Your task to perform on an android device: Search for sushi restaurants on Maps Image 0: 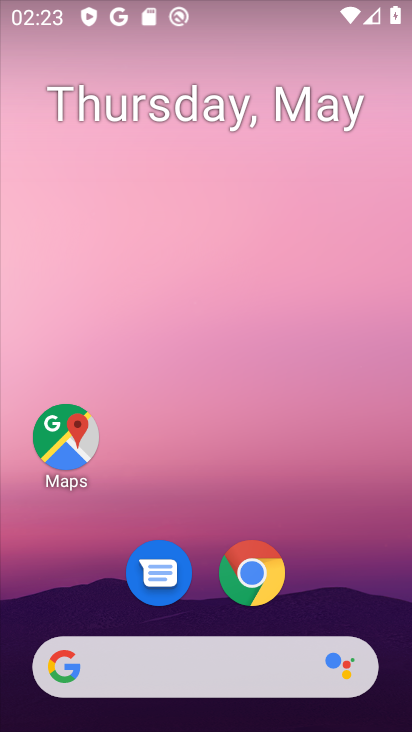
Step 0: click (67, 436)
Your task to perform on an android device: Search for sushi restaurants on Maps Image 1: 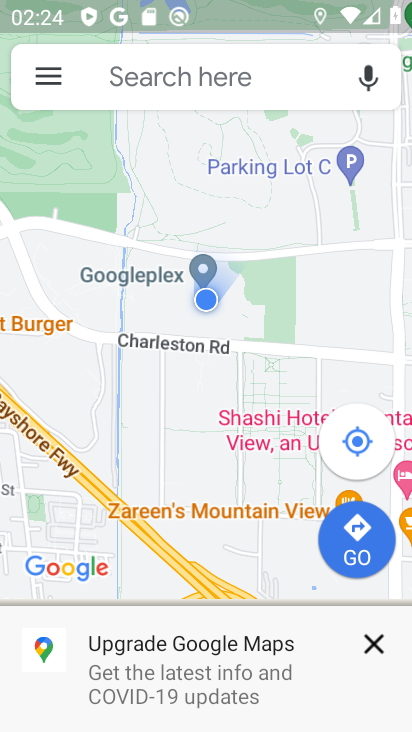
Step 1: click (145, 63)
Your task to perform on an android device: Search for sushi restaurants on Maps Image 2: 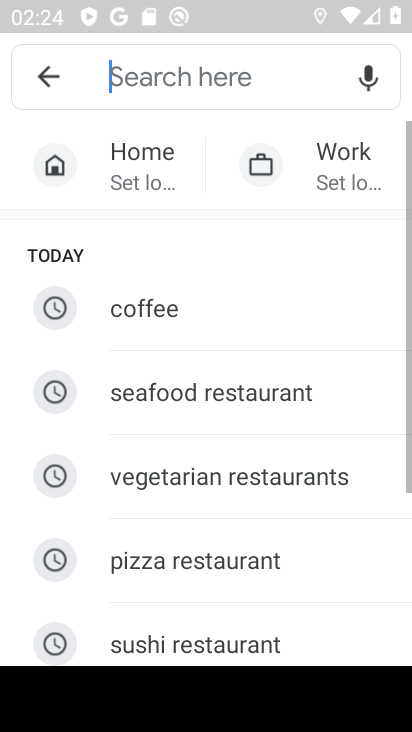
Step 2: drag from (214, 564) to (241, 389)
Your task to perform on an android device: Search for sushi restaurants on Maps Image 3: 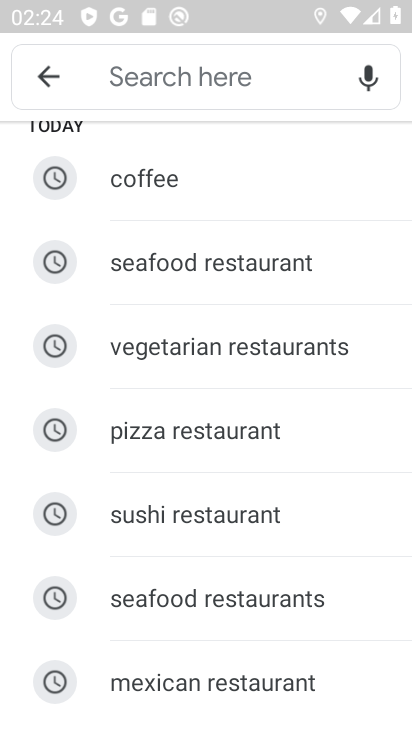
Step 3: click (194, 519)
Your task to perform on an android device: Search for sushi restaurants on Maps Image 4: 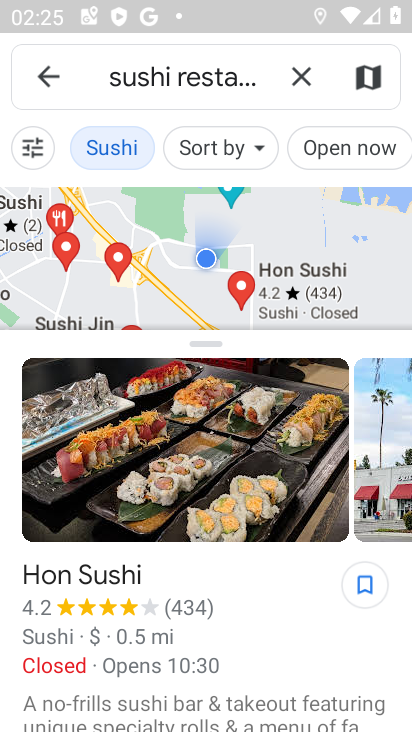
Step 4: task complete